Your task to perform on an android device: Search for the best rated lawnmower on Lowes.com Image 0: 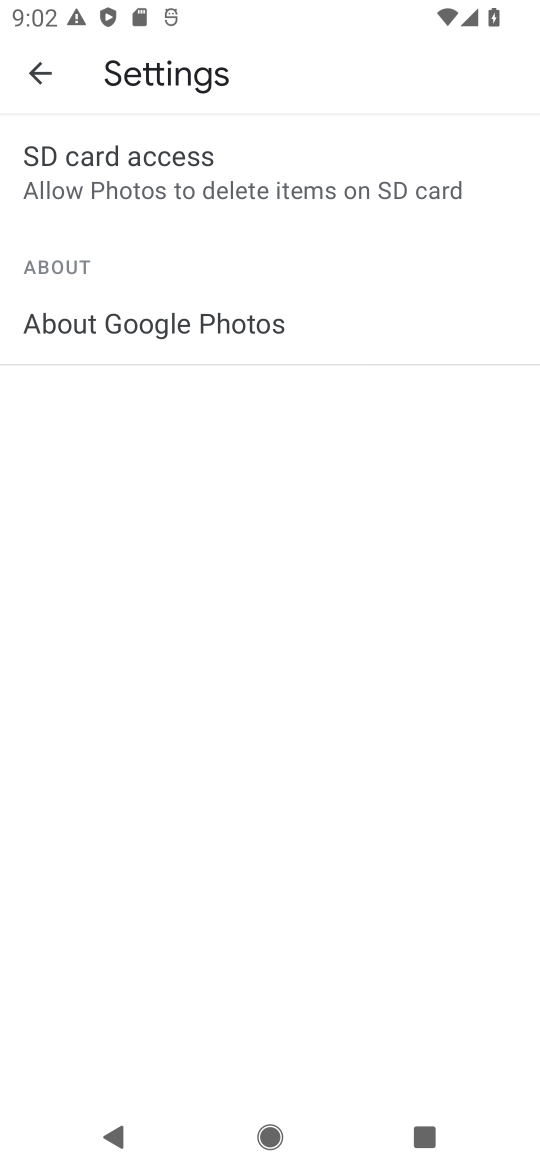
Step 0: press home button
Your task to perform on an android device: Search for the best rated lawnmower on Lowes.com Image 1: 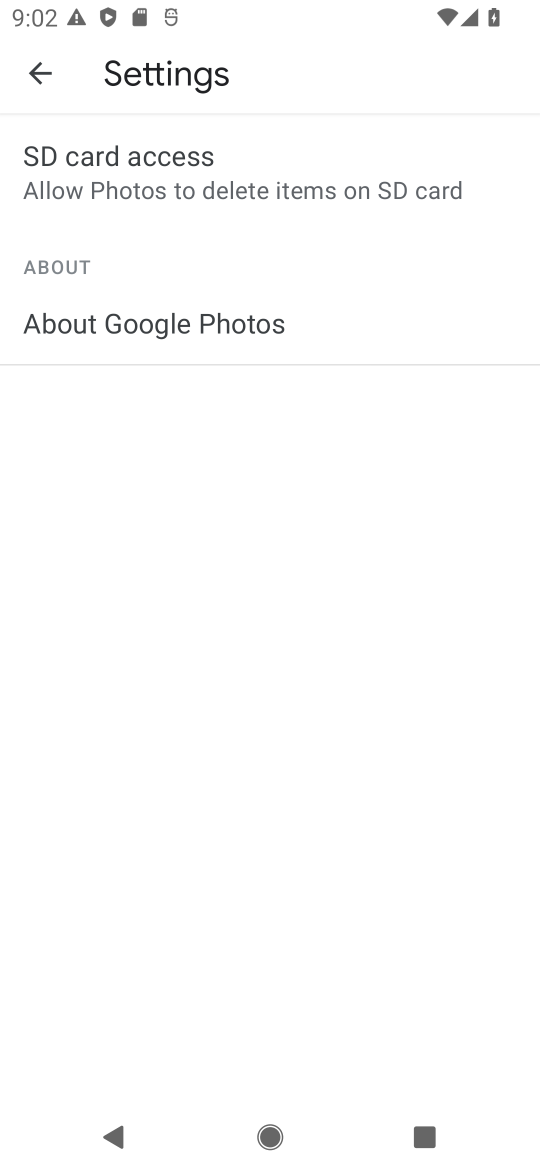
Step 1: press home button
Your task to perform on an android device: Search for the best rated lawnmower on Lowes.com Image 2: 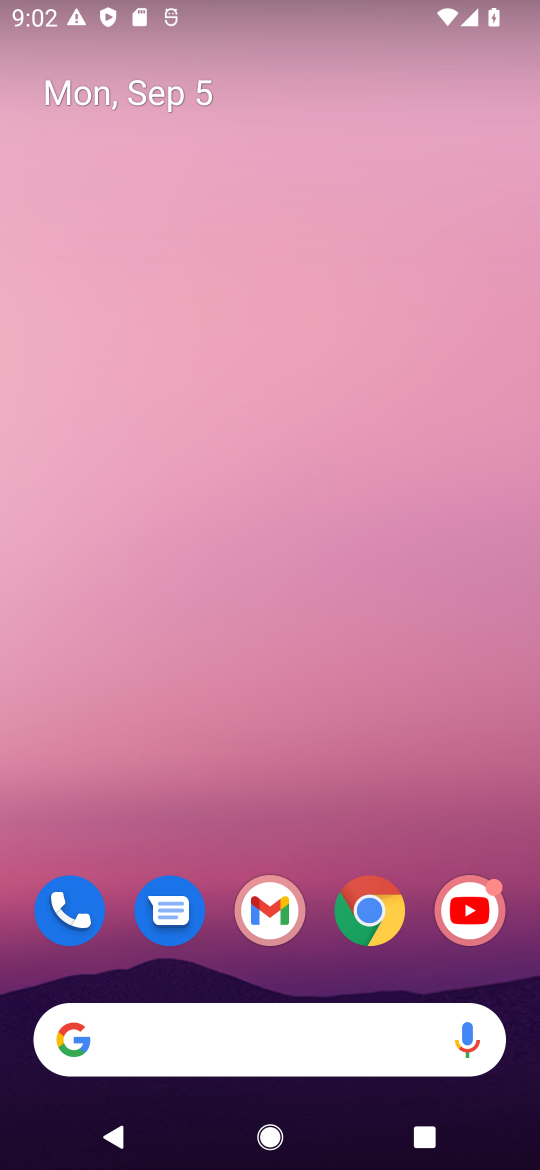
Step 2: click (348, 896)
Your task to perform on an android device: Search for the best rated lawnmower on Lowes.com Image 3: 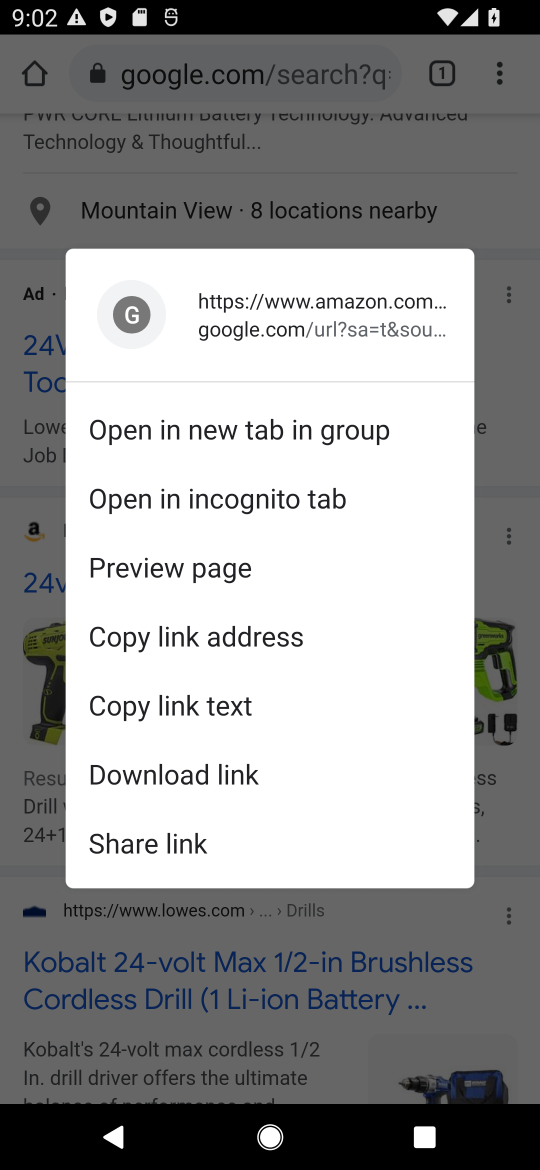
Step 3: press home button
Your task to perform on an android device: Search for the best rated lawnmower on Lowes.com Image 4: 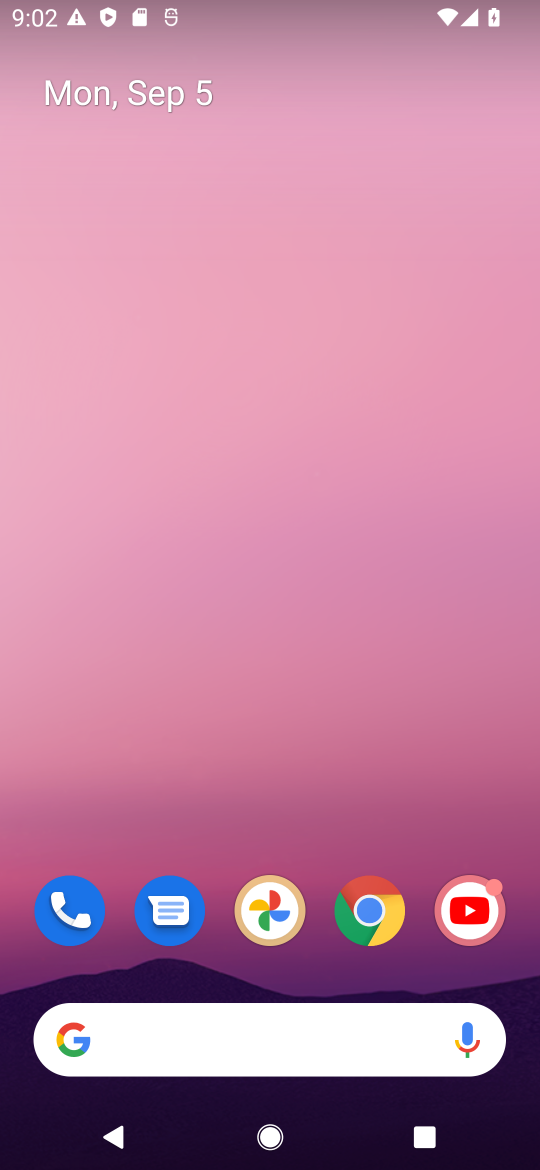
Step 4: click (369, 931)
Your task to perform on an android device: Search for the best rated lawnmower on Lowes.com Image 5: 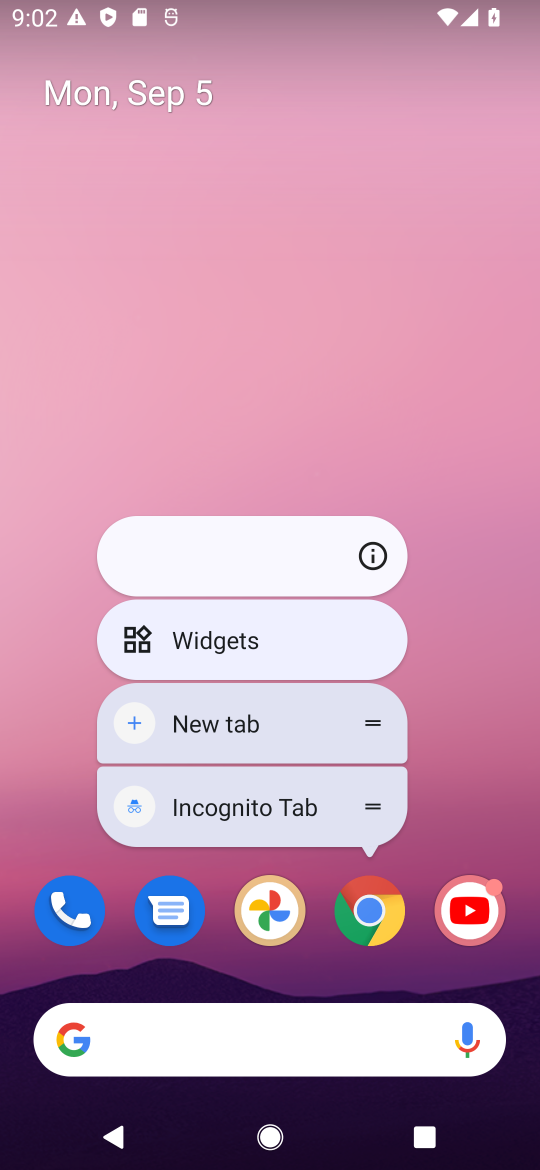
Step 5: click (369, 931)
Your task to perform on an android device: Search for the best rated lawnmower on Lowes.com Image 6: 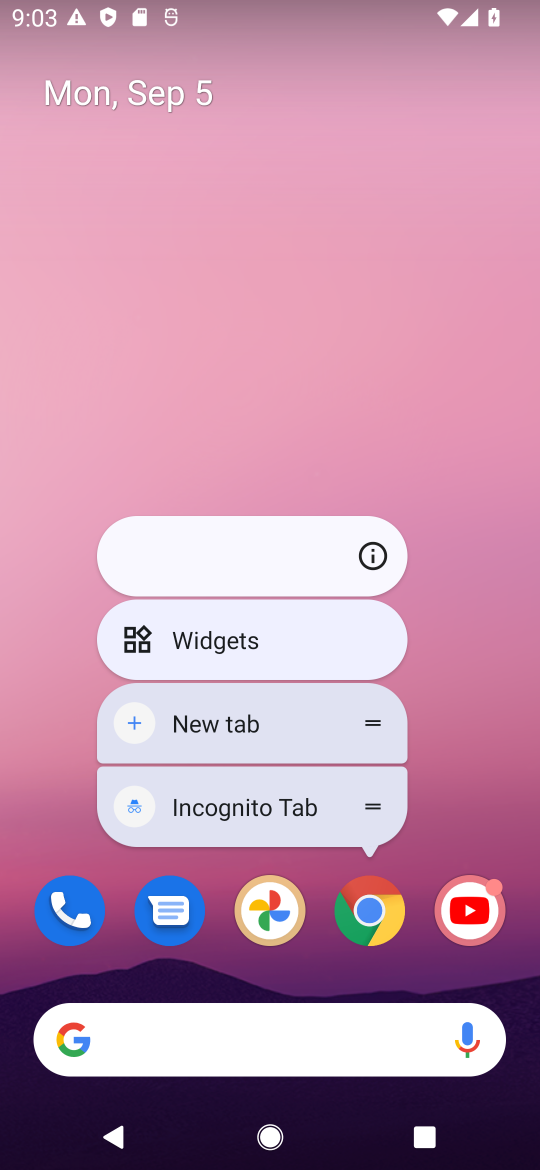
Step 6: click (384, 916)
Your task to perform on an android device: Search for the best rated lawnmower on Lowes.com Image 7: 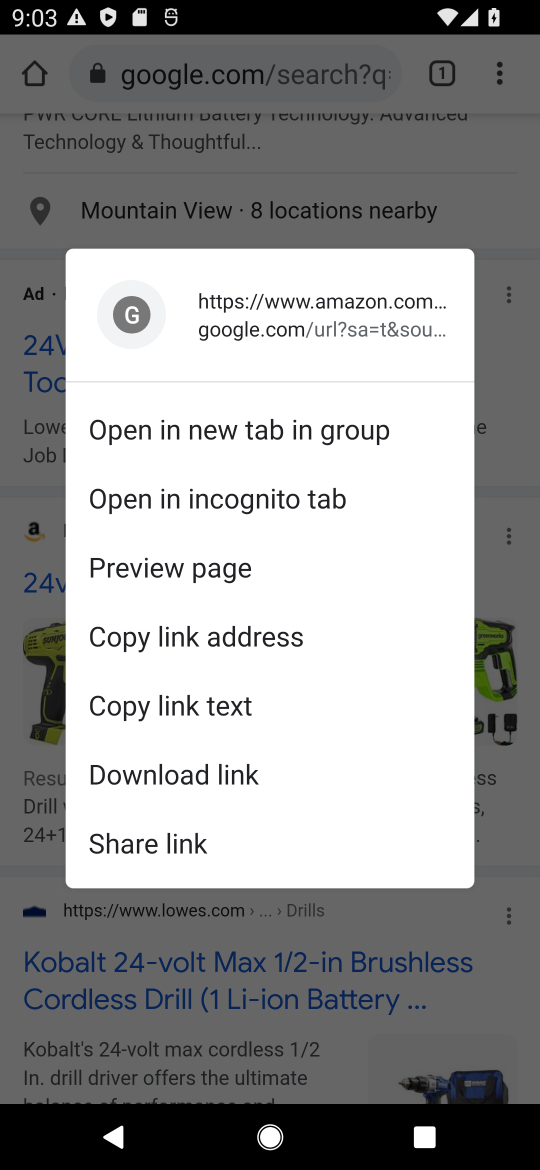
Step 7: click (86, 225)
Your task to perform on an android device: Search for the best rated lawnmower on Lowes.com Image 8: 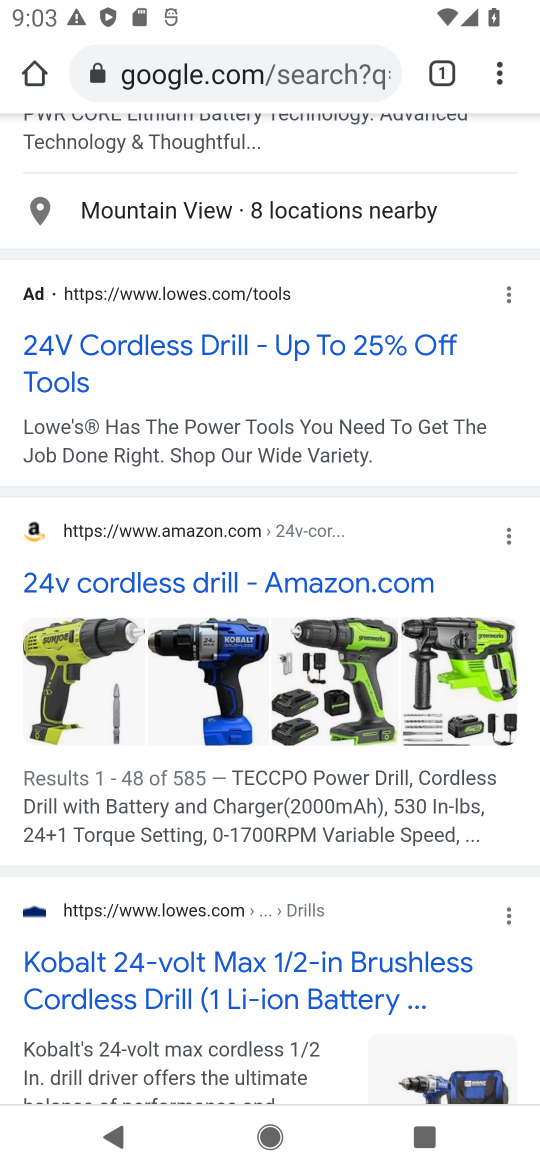
Step 8: click (272, 82)
Your task to perform on an android device: Search for the best rated lawnmower on Lowes.com Image 9: 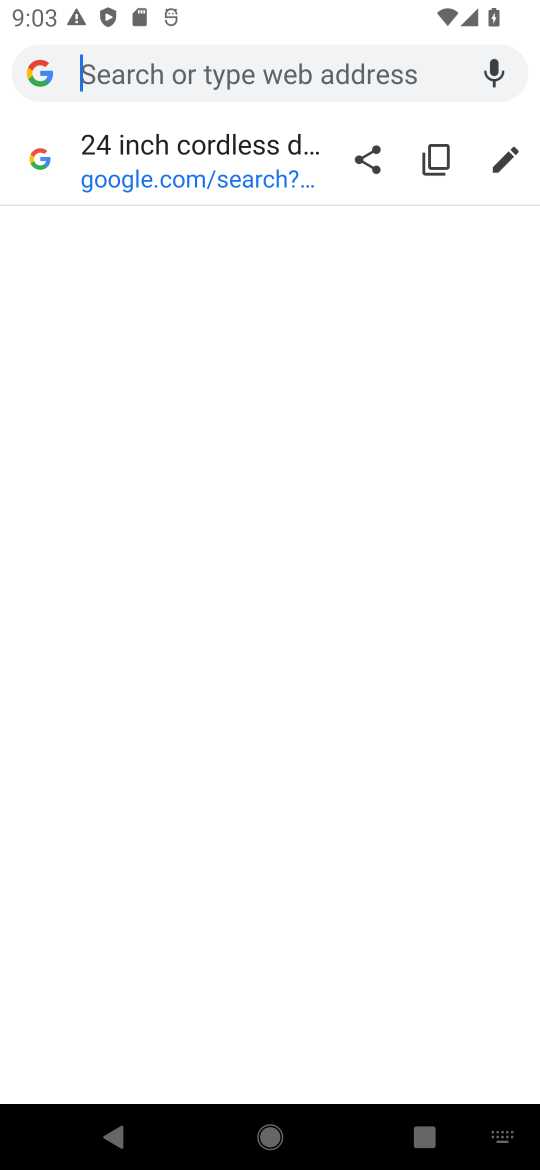
Step 9: type "lowes.com"
Your task to perform on an android device: Search for the best rated lawnmower on Lowes.com Image 10: 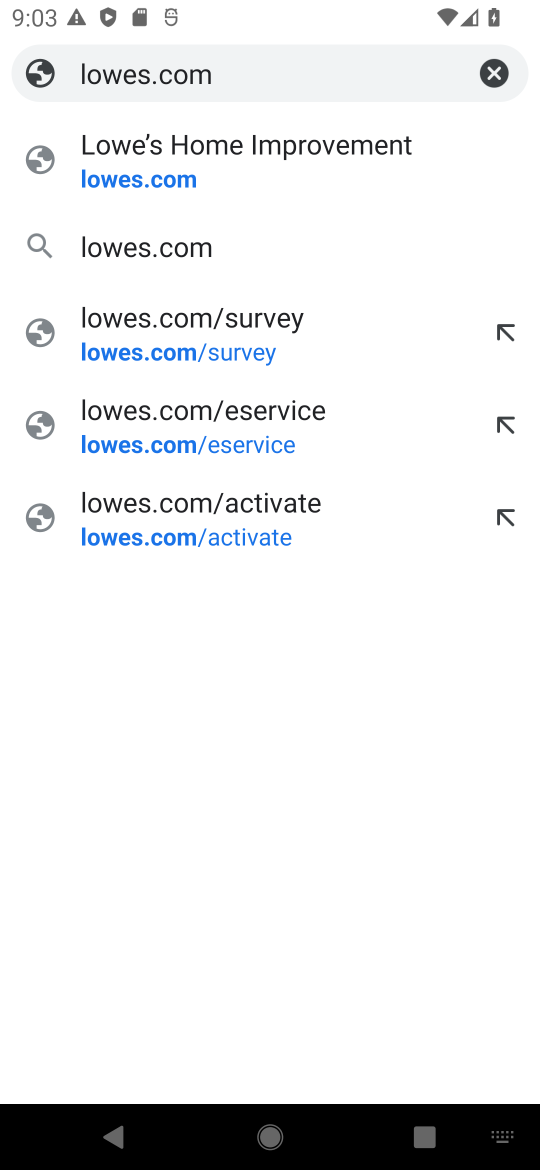
Step 10: click (291, 175)
Your task to perform on an android device: Search for the best rated lawnmower on Lowes.com Image 11: 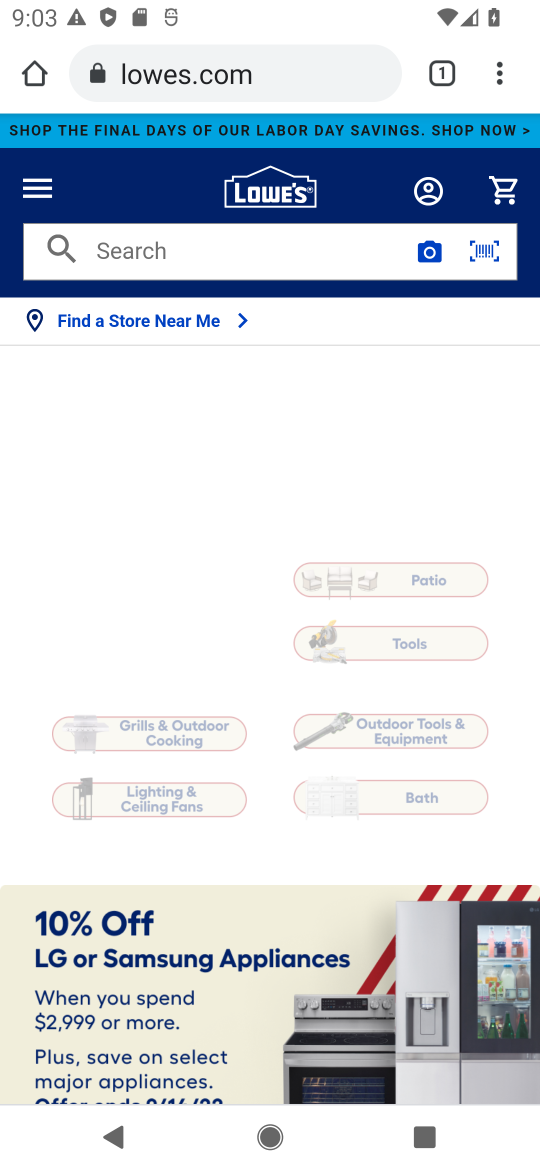
Step 11: click (195, 248)
Your task to perform on an android device: Search for the best rated lawnmower on Lowes.com Image 12: 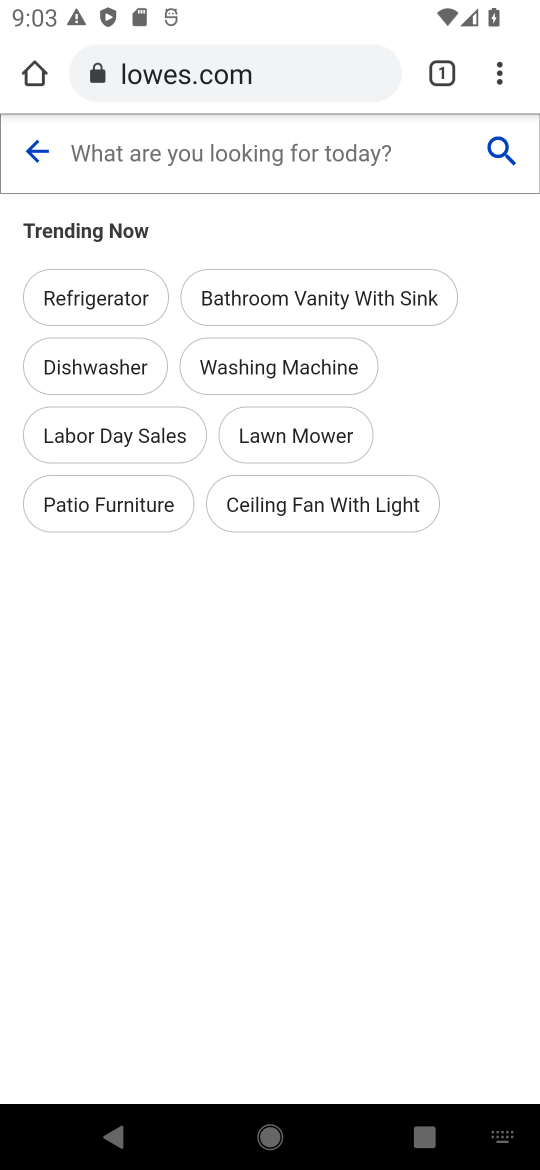
Step 12: type "best rated lawnmower"
Your task to perform on an android device: Search for the best rated lawnmower on Lowes.com Image 13: 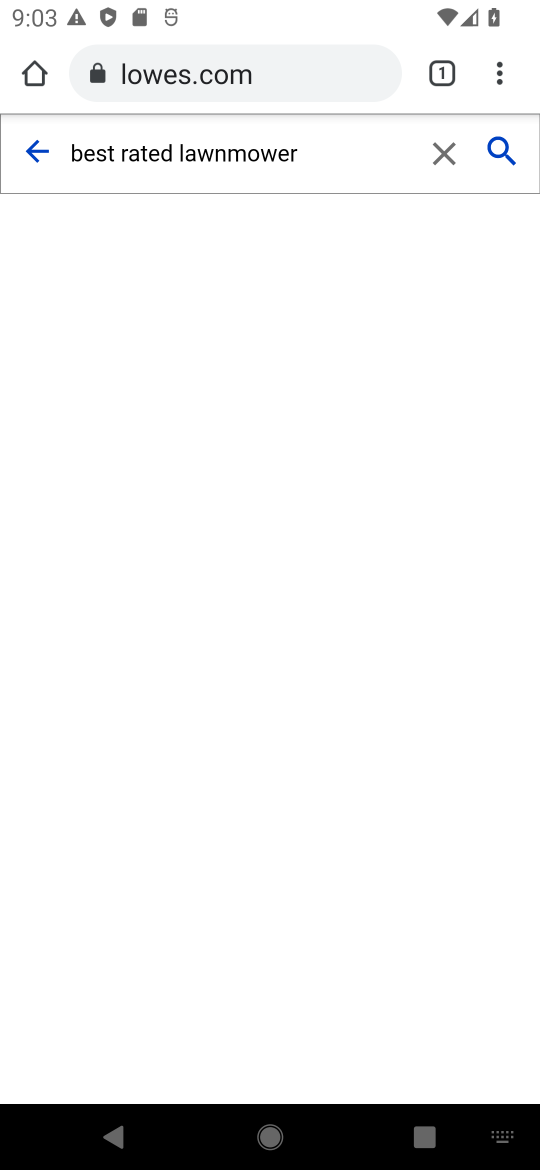
Step 13: press enter
Your task to perform on an android device: Search for the best rated lawnmower on Lowes.com Image 14: 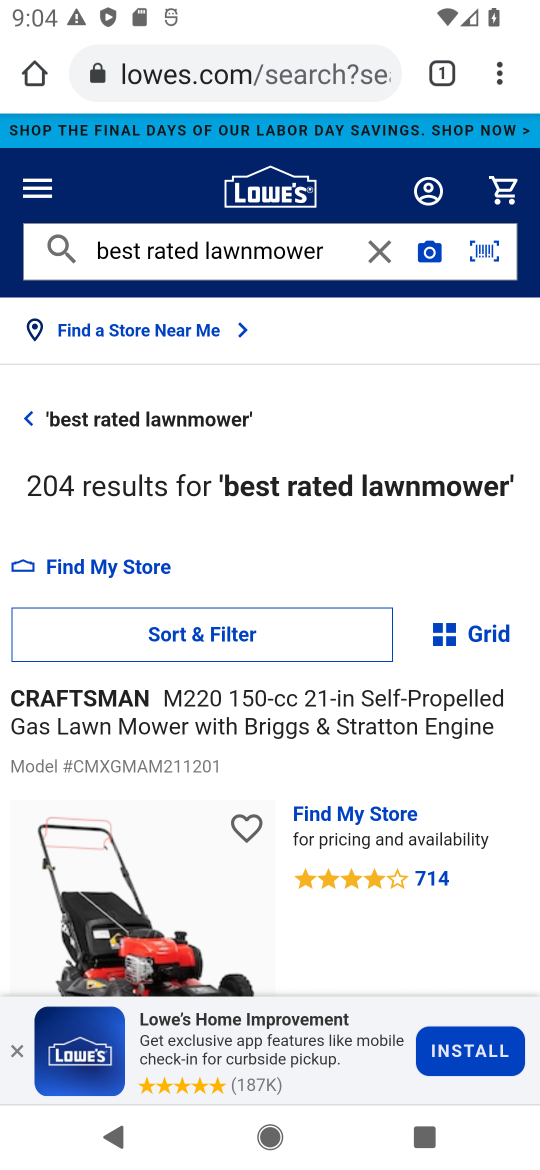
Step 14: task complete